Your task to perform on an android device: Open Chrome and go to the settings page Image 0: 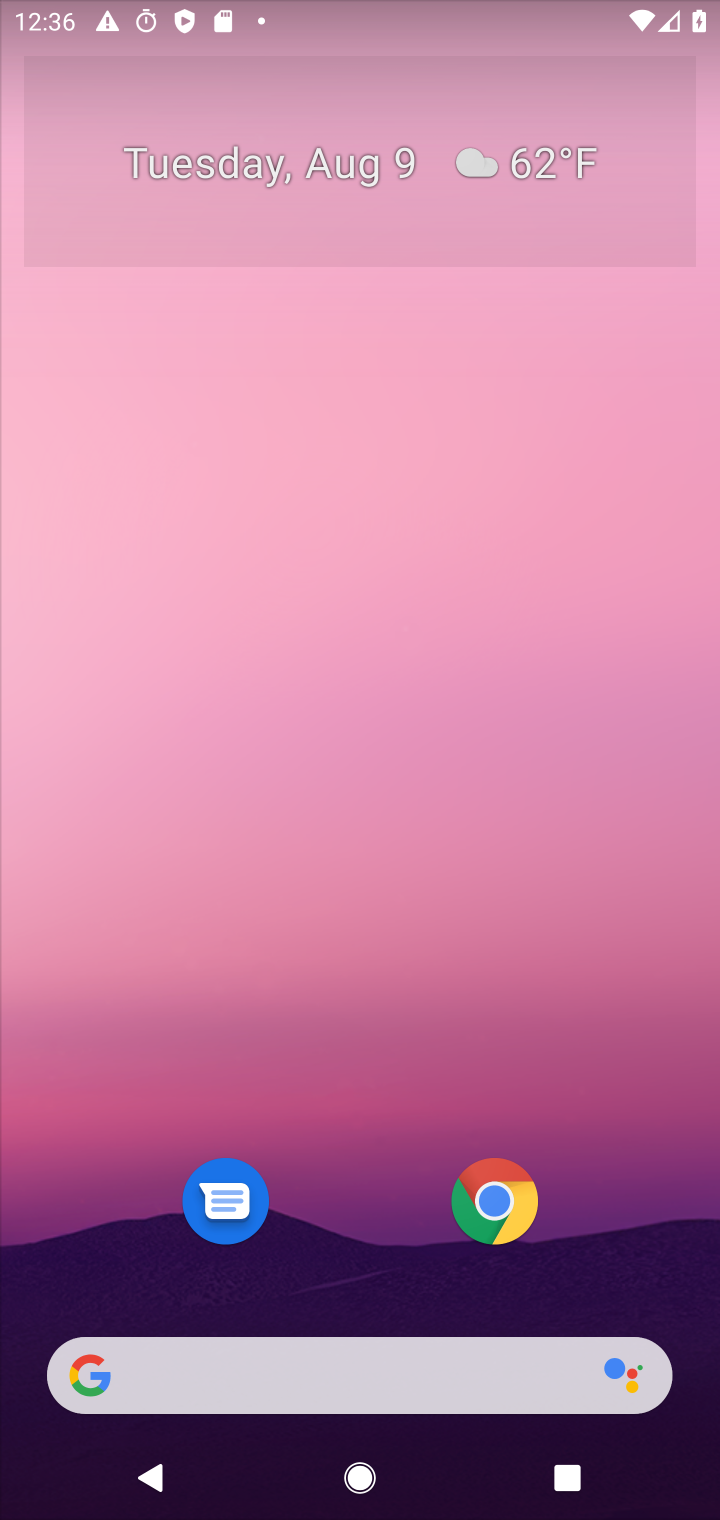
Step 0: drag from (346, 1311) to (493, 98)
Your task to perform on an android device: Open Chrome and go to the settings page Image 1: 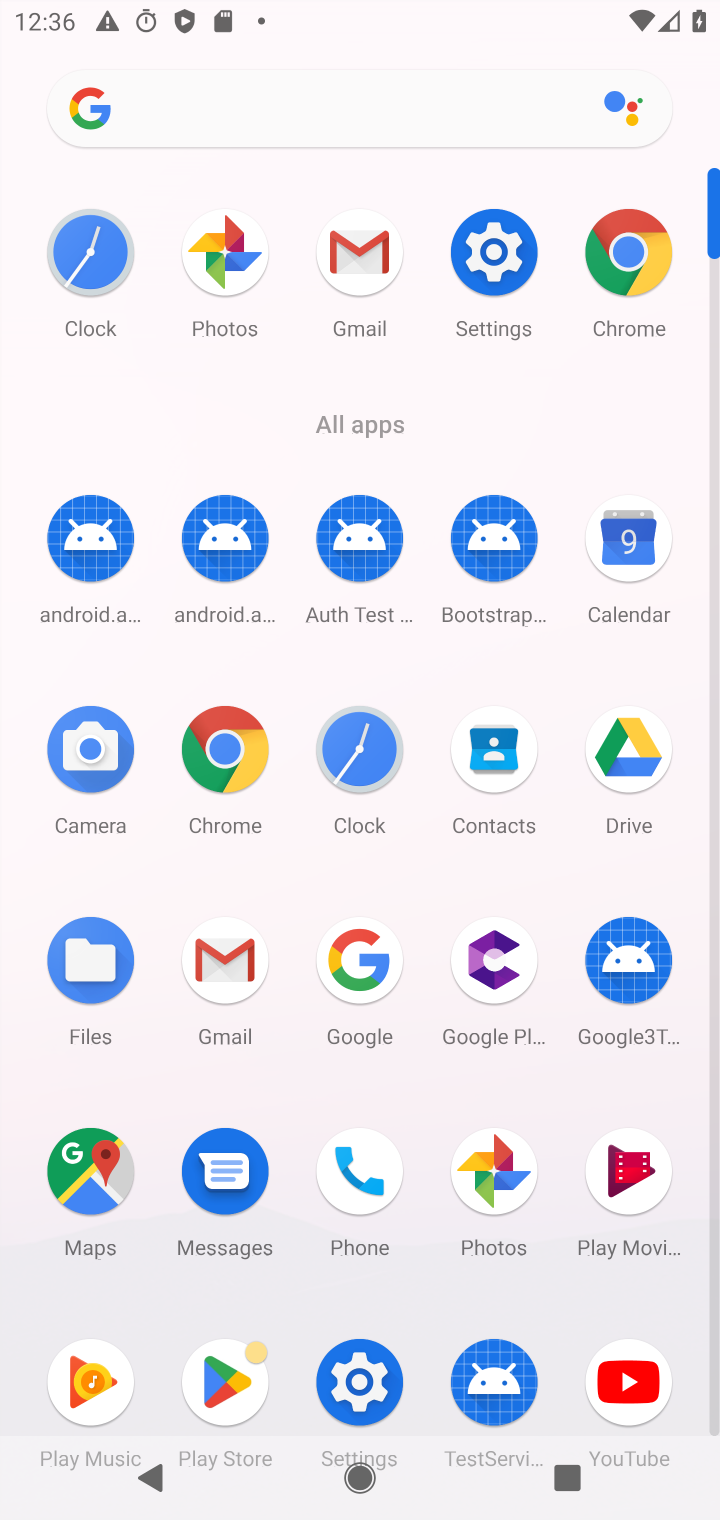
Step 1: click (217, 775)
Your task to perform on an android device: Open Chrome and go to the settings page Image 2: 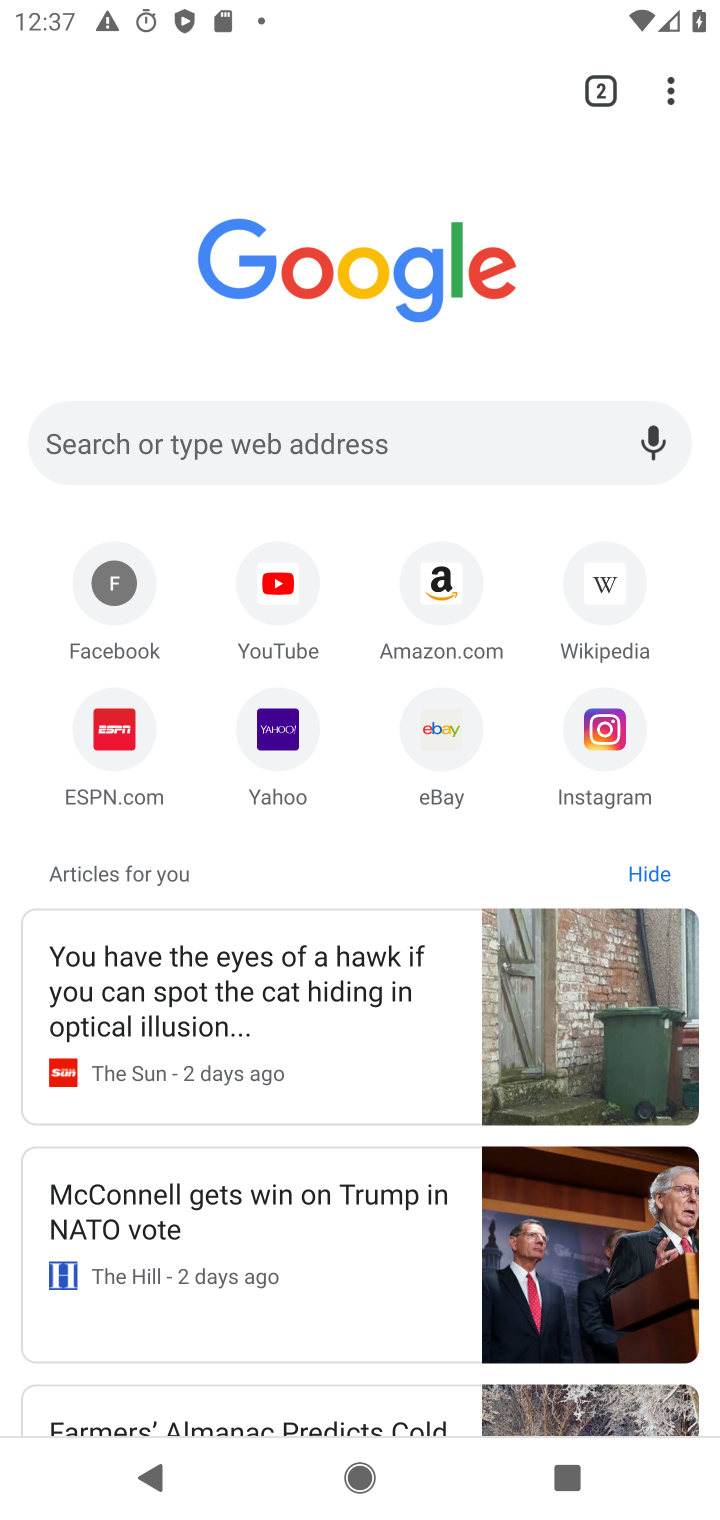
Step 2: click (671, 77)
Your task to perform on an android device: Open Chrome and go to the settings page Image 3: 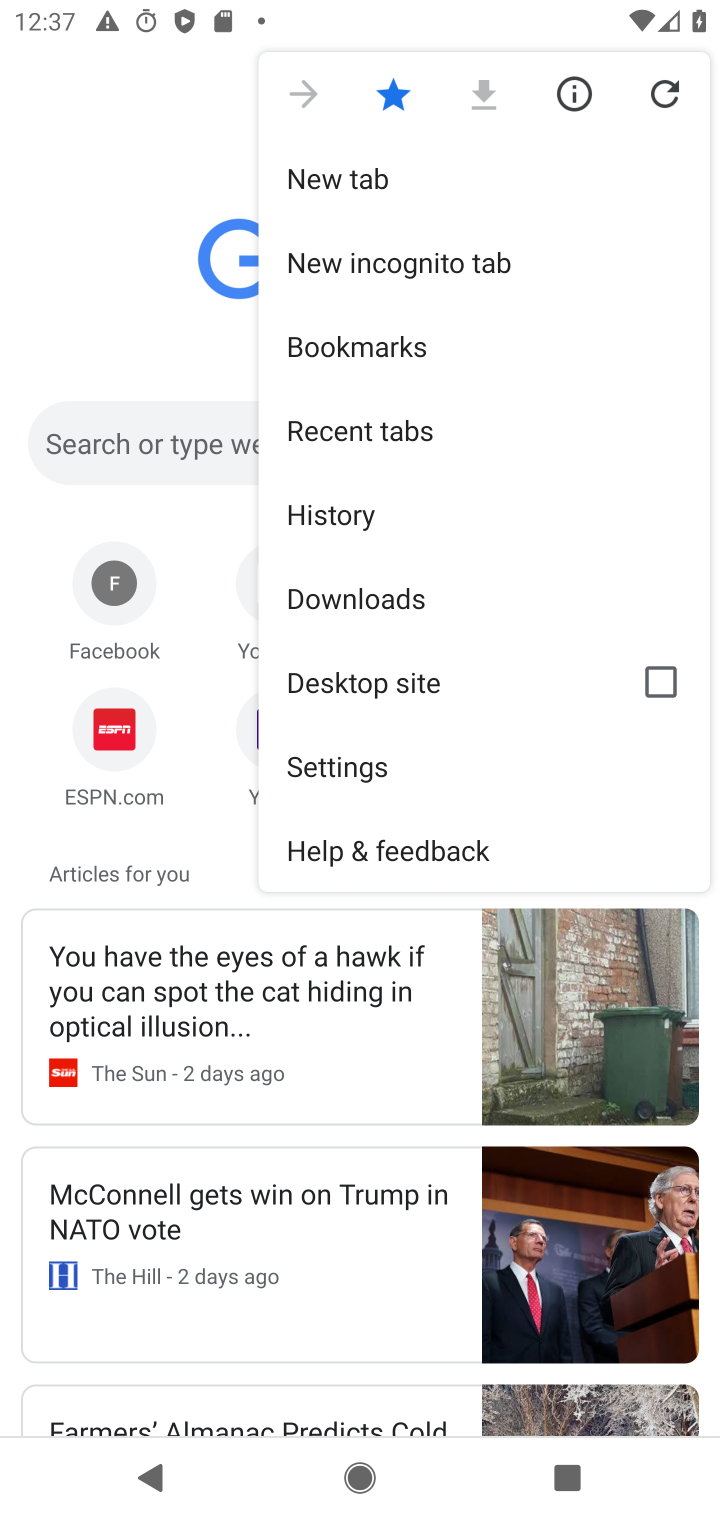
Step 3: click (367, 769)
Your task to perform on an android device: Open Chrome and go to the settings page Image 4: 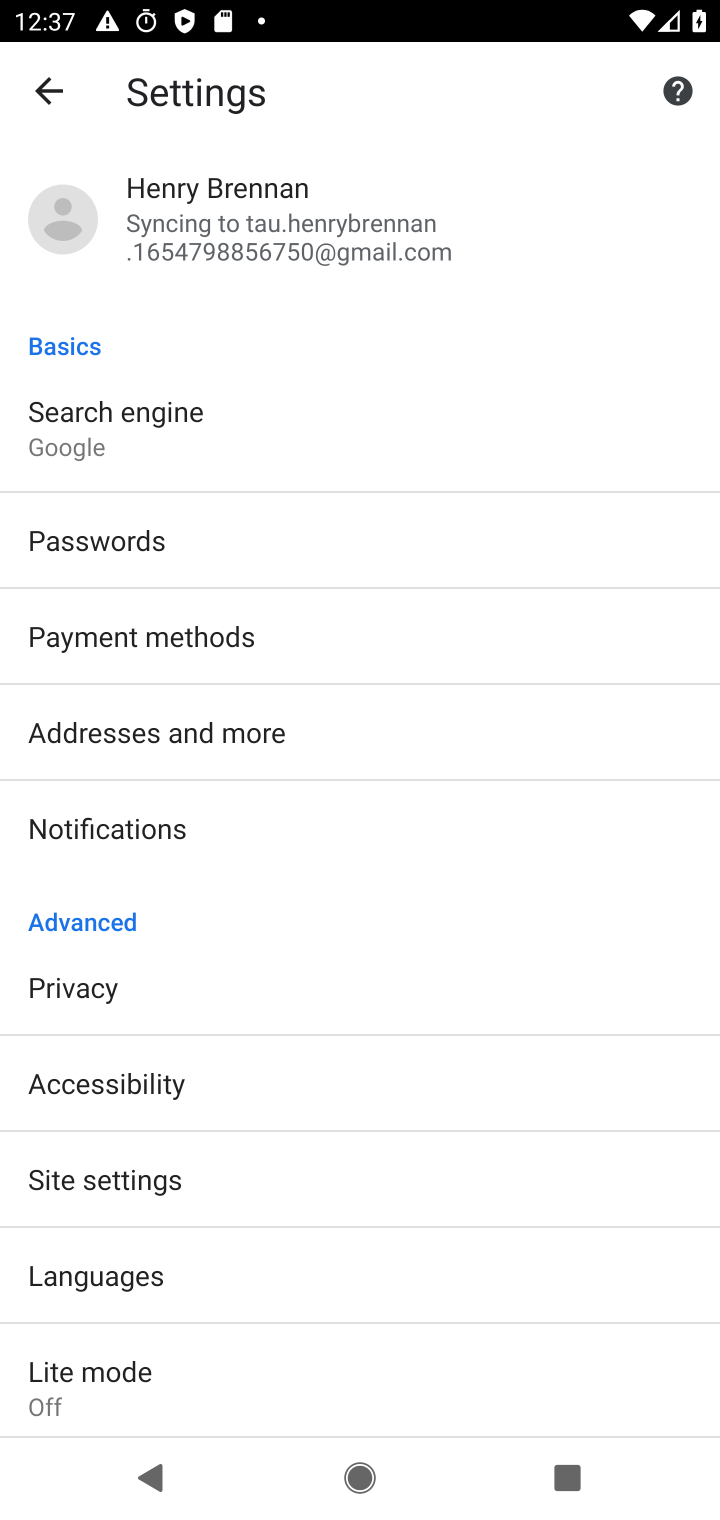
Step 4: task complete